Your task to perform on an android device: change keyboard looks Image 0: 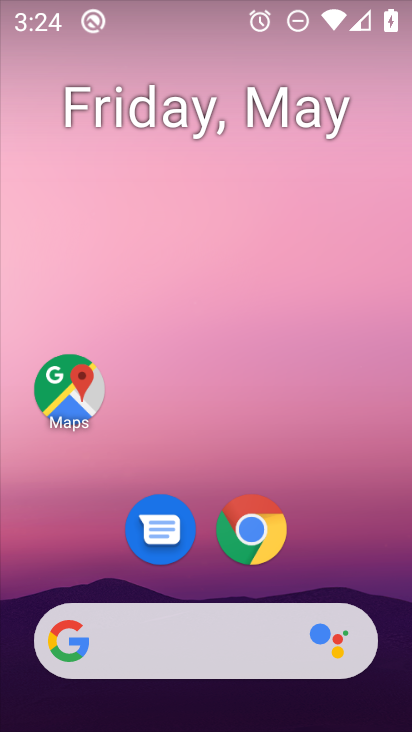
Step 0: drag from (392, 685) to (381, 85)
Your task to perform on an android device: change keyboard looks Image 1: 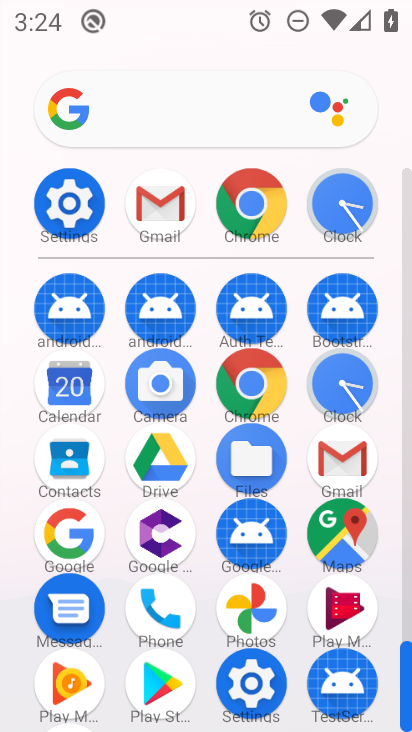
Step 1: click (241, 669)
Your task to perform on an android device: change keyboard looks Image 2: 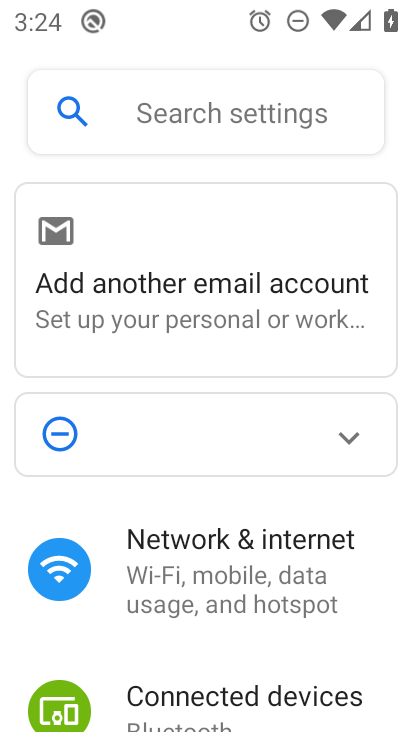
Step 2: drag from (297, 720) to (297, 235)
Your task to perform on an android device: change keyboard looks Image 3: 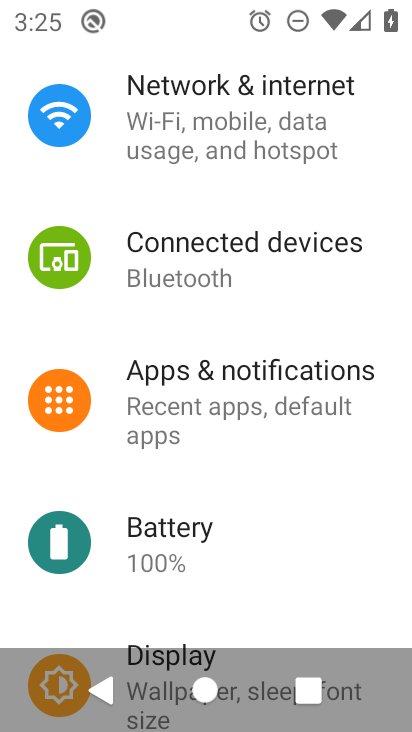
Step 3: drag from (282, 629) to (258, 214)
Your task to perform on an android device: change keyboard looks Image 4: 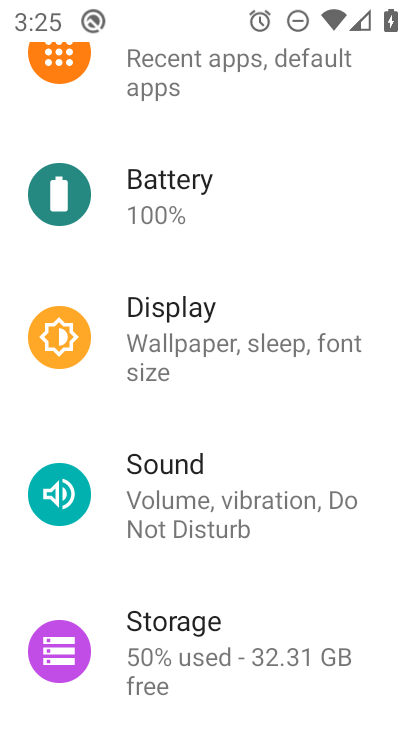
Step 4: drag from (267, 701) to (238, 250)
Your task to perform on an android device: change keyboard looks Image 5: 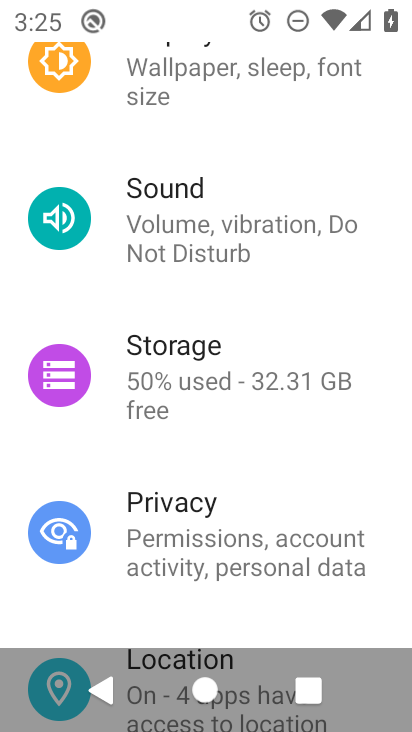
Step 5: drag from (248, 627) to (239, 251)
Your task to perform on an android device: change keyboard looks Image 6: 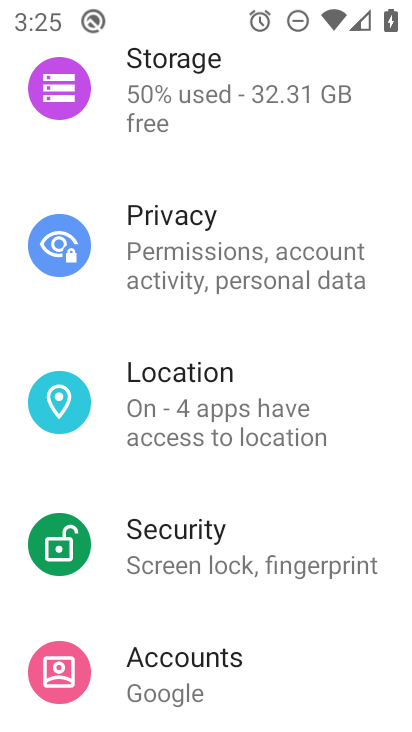
Step 6: drag from (278, 707) to (271, 336)
Your task to perform on an android device: change keyboard looks Image 7: 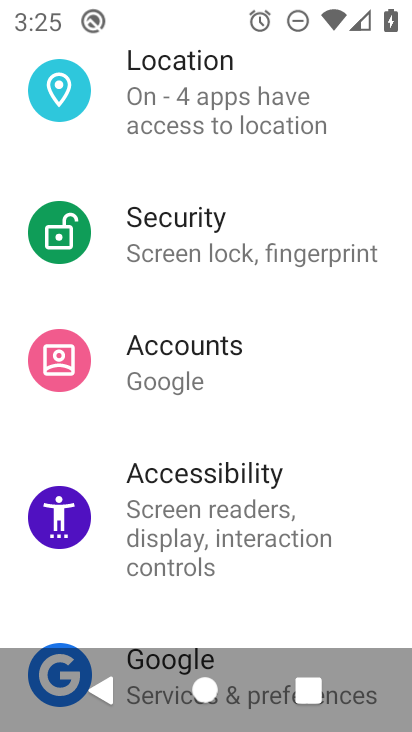
Step 7: drag from (273, 620) to (271, 320)
Your task to perform on an android device: change keyboard looks Image 8: 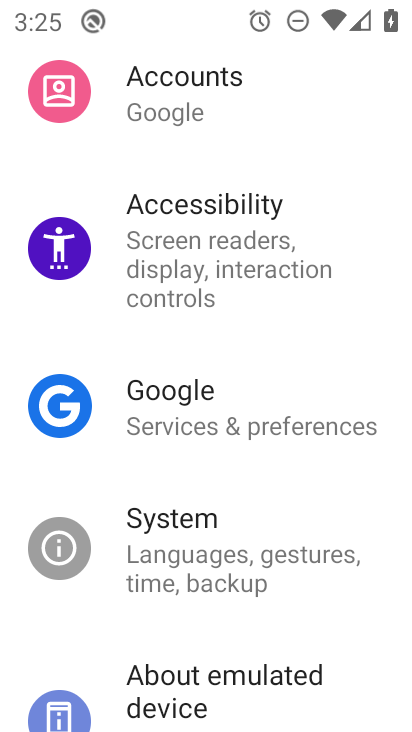
Step 8: drag from (250, 647) to (252, 396)
Your task to perform on an android device: change keyboard looks Image 9: 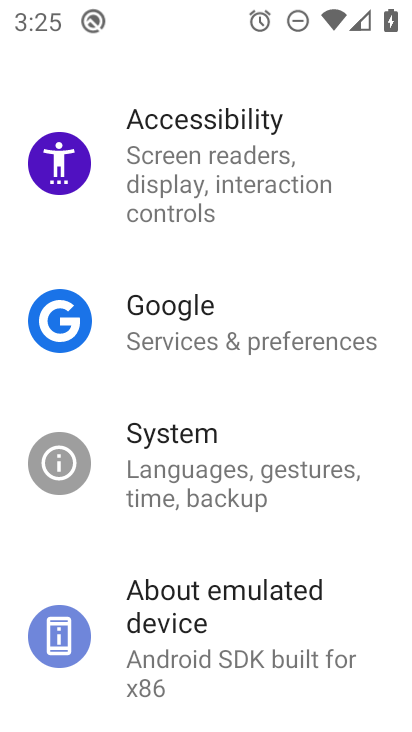
Step 9: click (150, 449)
Your task to perform on an android device: change keyboard looks Image 10: 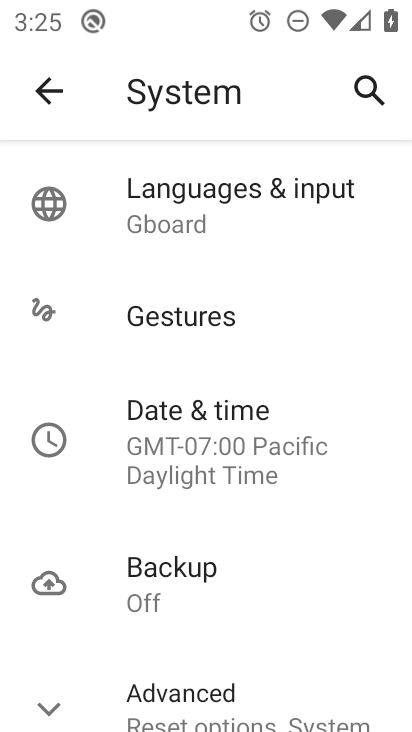
Step 10: click (163, 195)
Your task to perform on an android device: change keyboard looks Image 11: 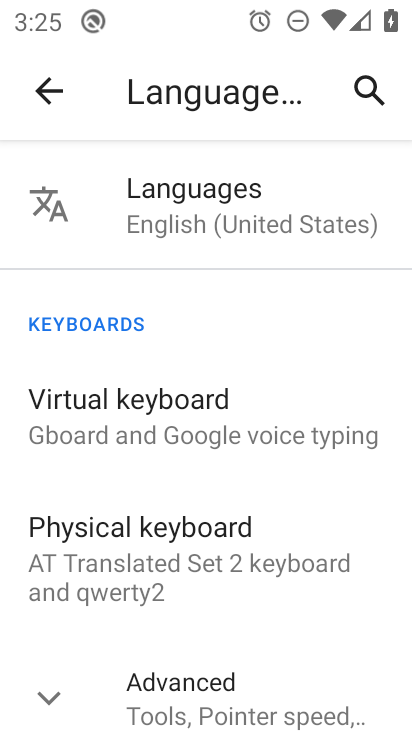
Step 11: click (99, 410)
Your task to perform on an android device: change keyboard looks Image 12: 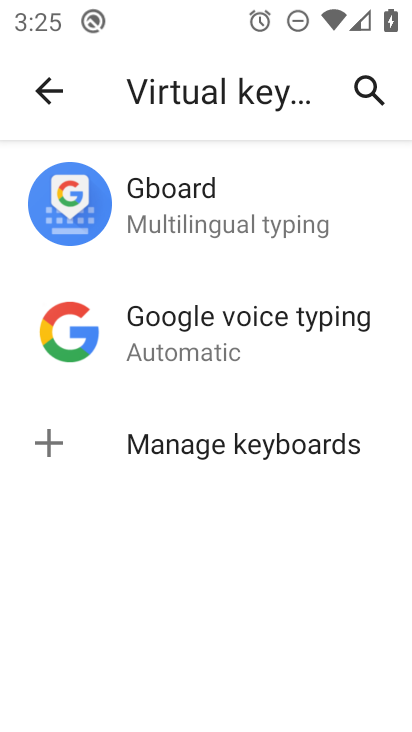
Step 12: click (146, 211)
Your task to perform on an android device: change keyboard looks Image 13: 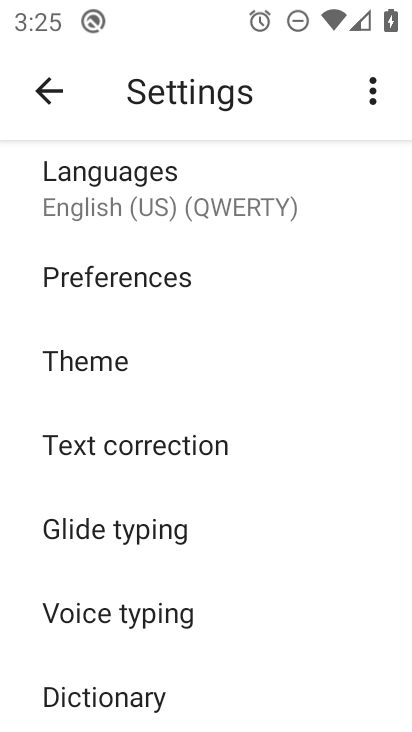
Step 13: click (62, 367)
Your task to perform on an android device: change keyboard looks Image 14: 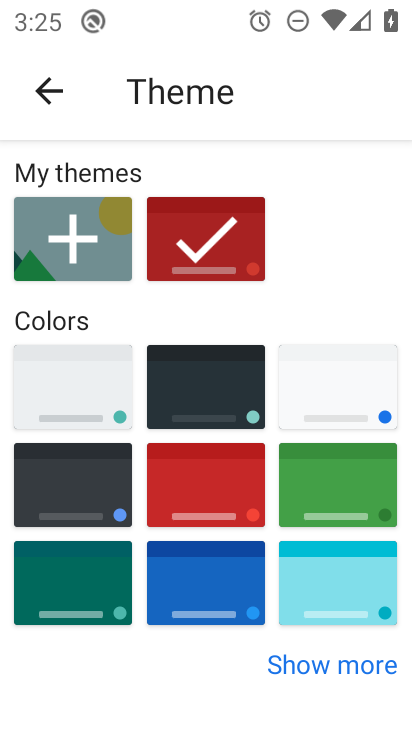
Step 14: click (210, 489)
Your task to perform on an android device: change keyboard looks Image 15: 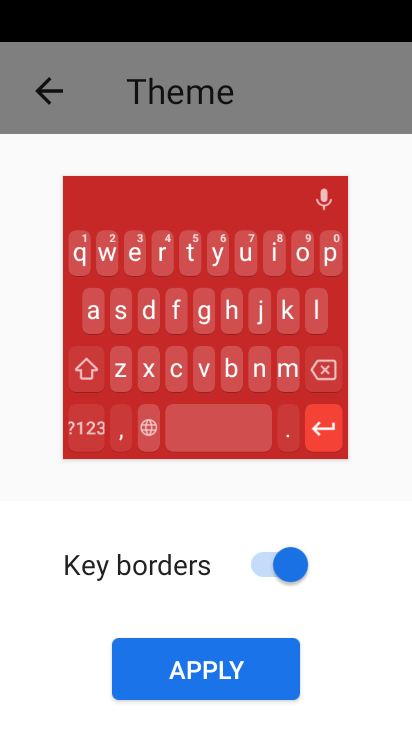
Step 15: click (181, 665)
Your task to perform on an android device: change keyboard looks Image 16: 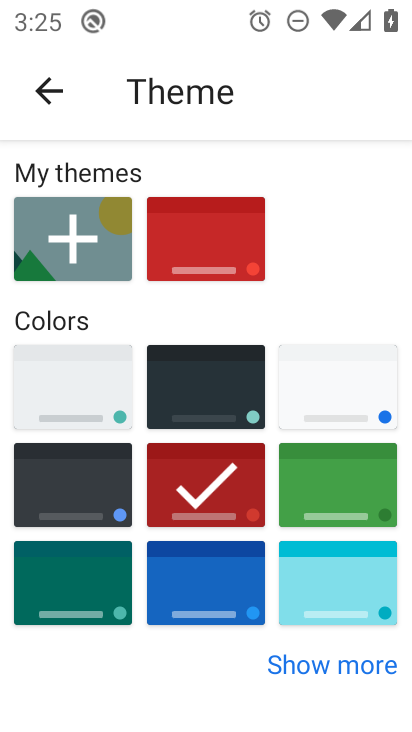
Step 16: task complete